Your task to perform on an android device: move a message to another label in the gmail app Image 0: 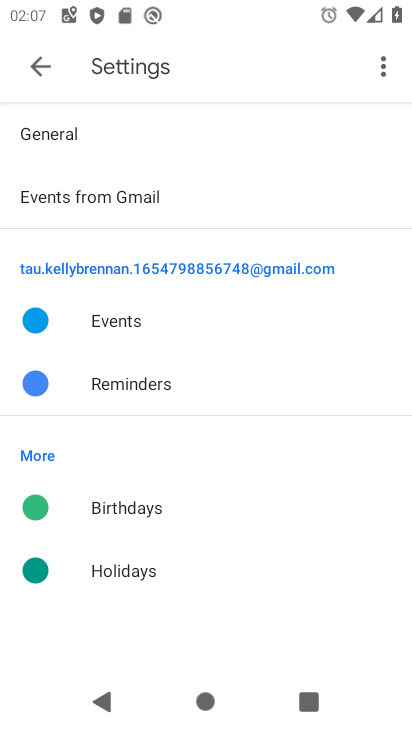
Step 0: press home button
Your task to perform on an android device: move a message to another label in the gmail app Image 1: 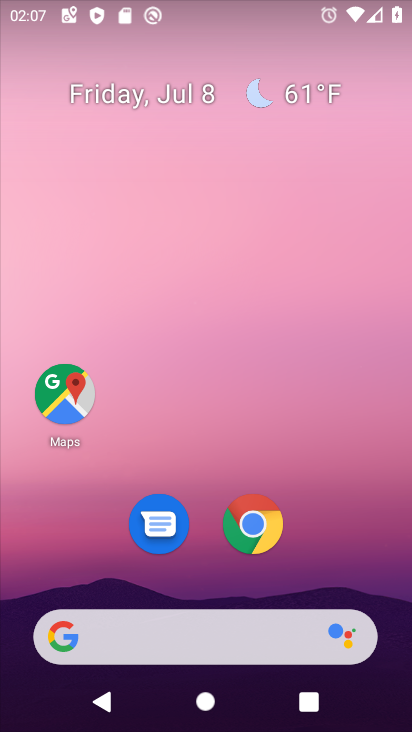
Step 1: drag from (312, 543) to (322, 24)
Your task to perform on an android device: move a message to another label in the gmail app Image 2: 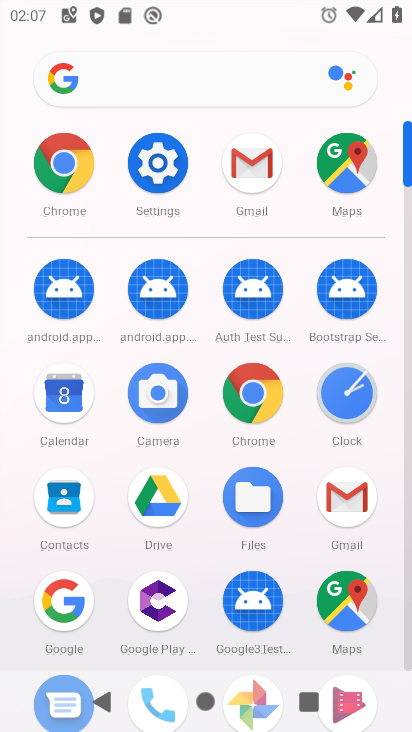
Step 2: click (270, 160)
Your task to perform on an android device: move a message to another label in the gmail app Image 3: 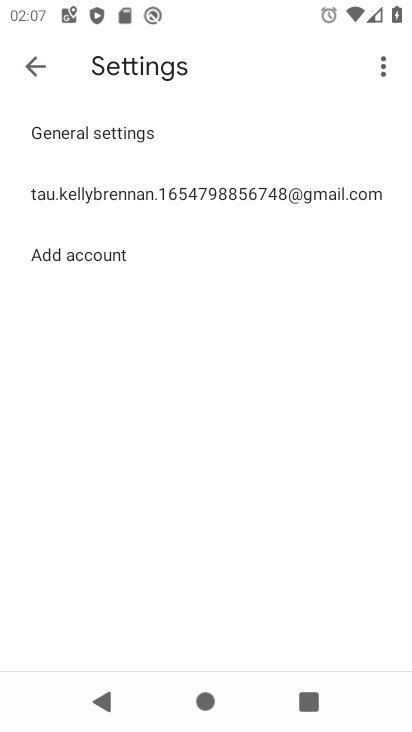
Step 3: click (38, 58)
Your task to perform on an android device: move a message to another label in the gmail app Image 4: 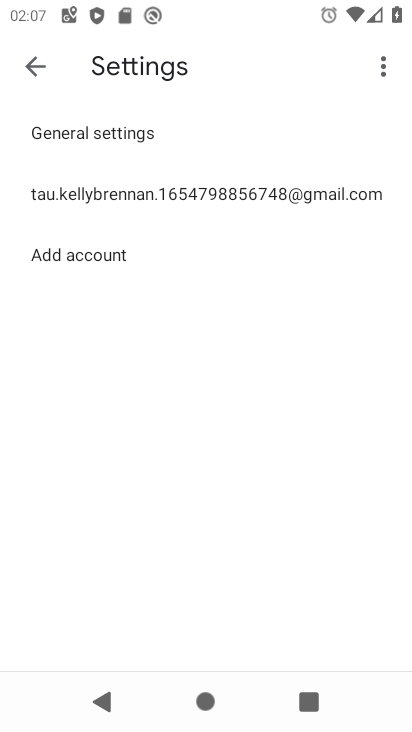
Step 4: click (32, 64)
Your task to perform on an android device: move a message to another label in the gmail app Image 5: 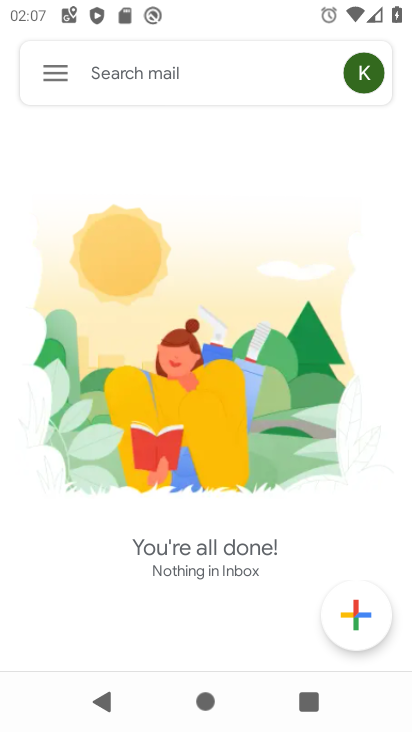
Step 5: click (56, 71)
Your task to perform on an android device: move a message to another label in the gmail app Image 6: 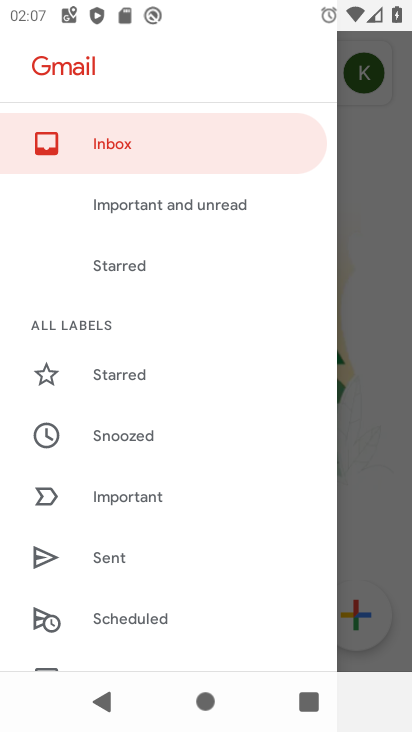
Step 6: drag from (174, 516) to (169, 135)
Your task to perform on an android device: move a message to another label in the gmail app Image 7: 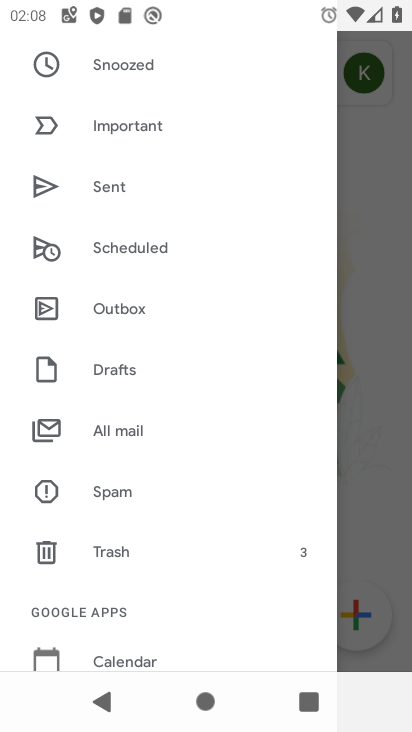
Step 7: click (132, 430)
Your task to perform on an android device: move a message to another label in the gmail app Image 8: 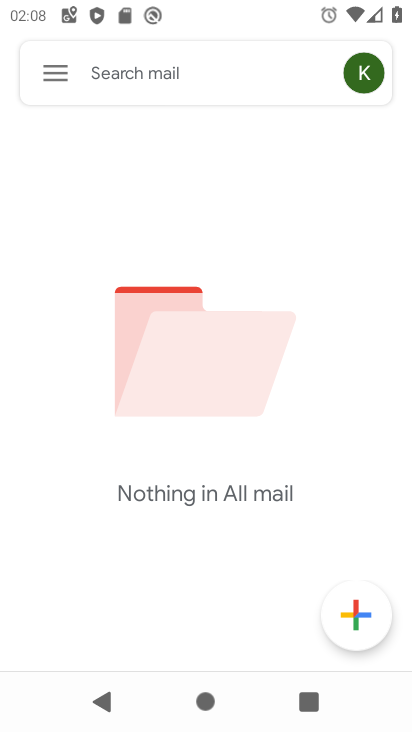
Step 8: task complete